Your task to perform on an android device: empty trash in google photos Image 0: 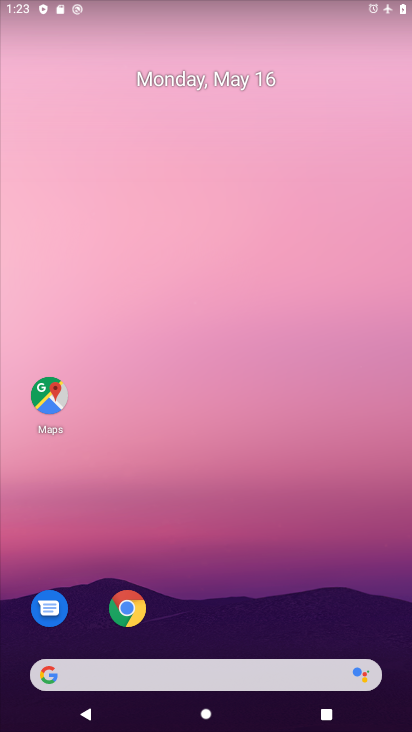
Step 0: drag from (257, 613) to (262, 182)
Your task to perform on an android device: empty trash in google photos Image 1: 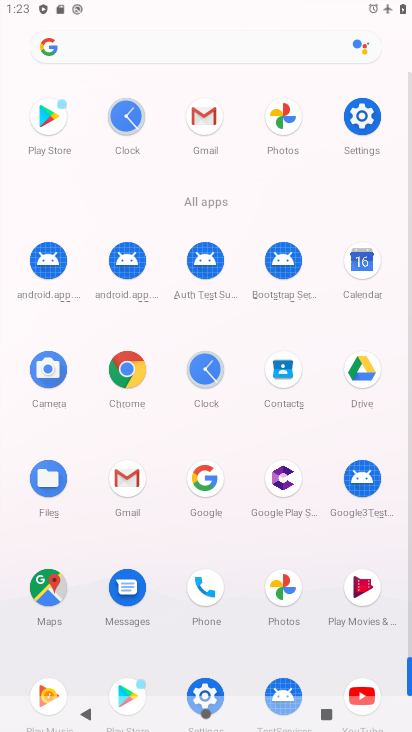
Step 1: click (287, 120)
Your task to perform on an android device: empty trash in google photos Image 2: 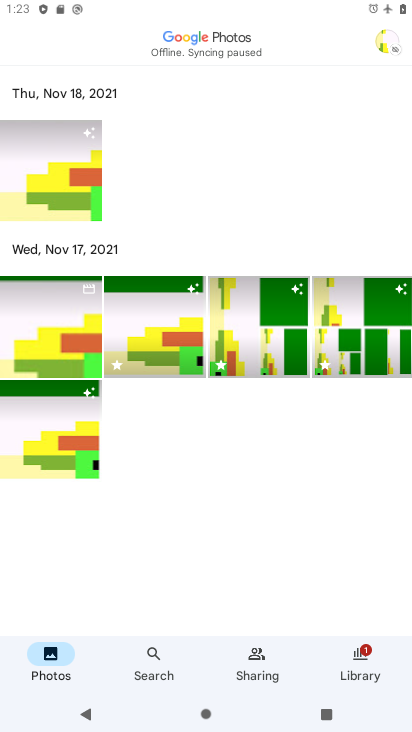
Step 2: click (364, 656)
Your task to perform on an android device: empty trash in google photos Image 3: 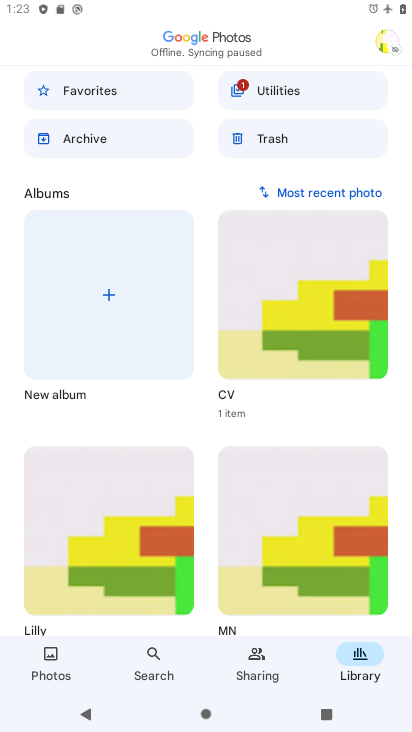
Step 3: click (288, 137)
Your task to perform on an android device: empty trash in google photos Image 4: 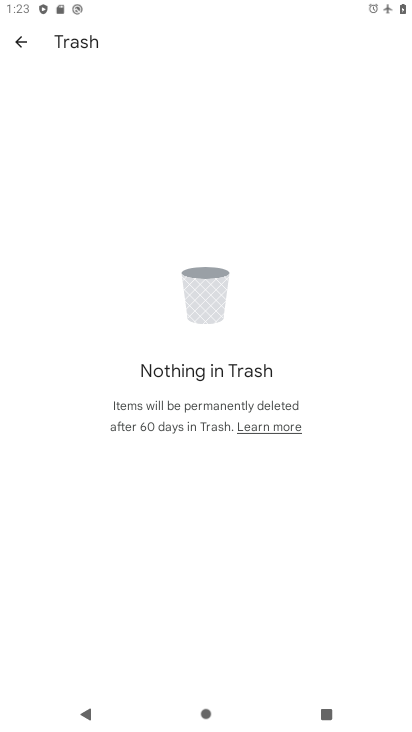
Step 4: task complete